Your task to perform on an android device: turn on showing notifications on the lock screen Image 0: 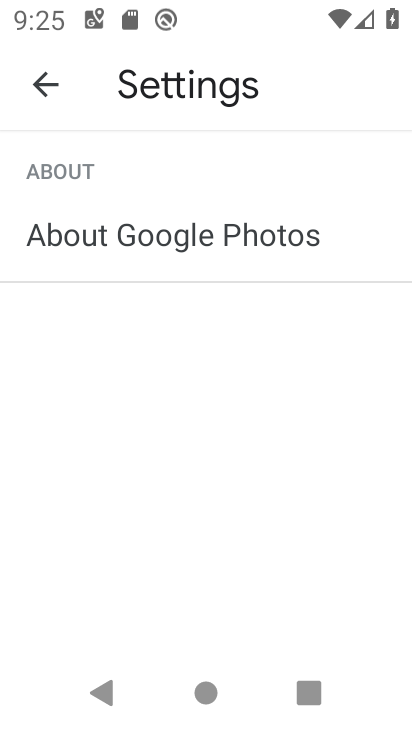
Step 0: press home button
Your task to perform on an android device: turn on showing notifications on the lock screen Image 1: 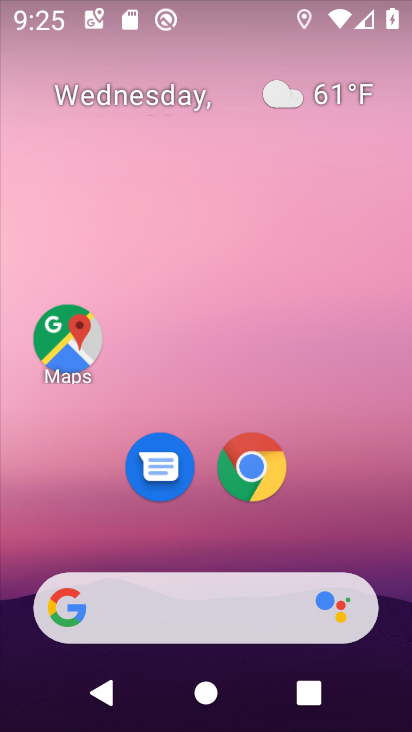
Step 1: drag from (339, 435) to (387, 50)
Your task to perform on an android device: turn on showing notifications on the lock screen Image 2: 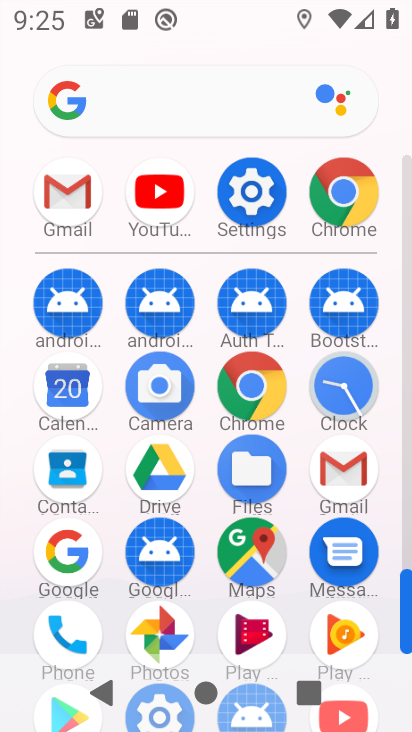
Step 2: click (243, 199)
Your task to perform on an android device: turn on showing notifications on the lock screen Image 3: 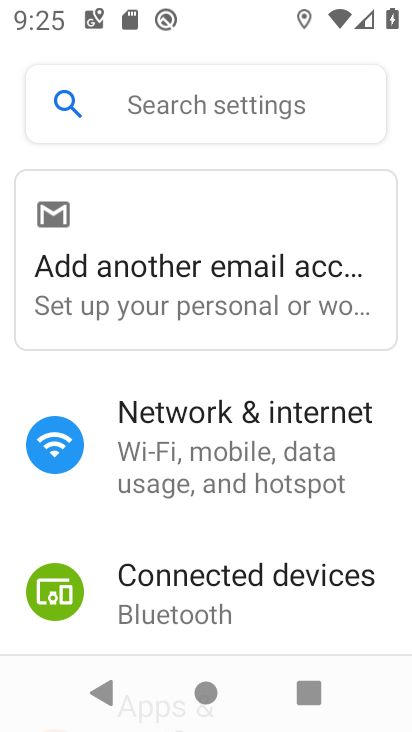
Step 3: drag from (234, 586) to (310, 187)
Your task to perform on an android device: turn on showing notifications on the lock screen Image 4: 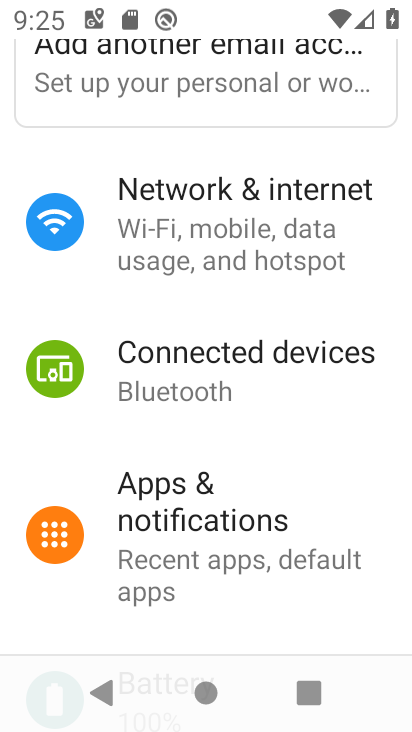
Step 4: click (288, 552)
Your task to perform on an android device: turn on showing notifications on the lock screen Image 5: 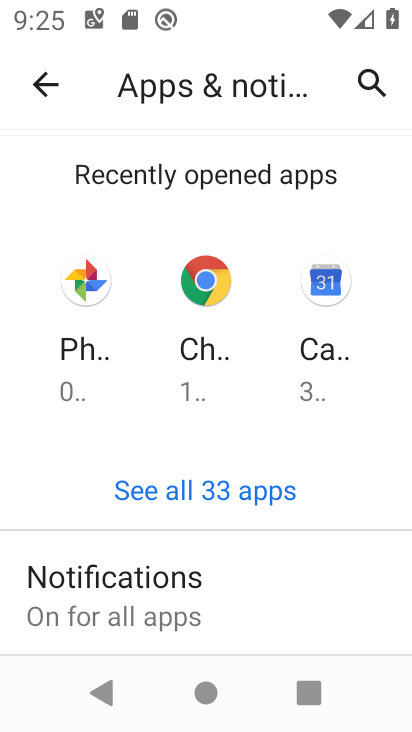
Step 5: drag from (247, 578) to (307, 268)
Your task to perform on an android device: turn on showing notifications on the lock screen Image 6: 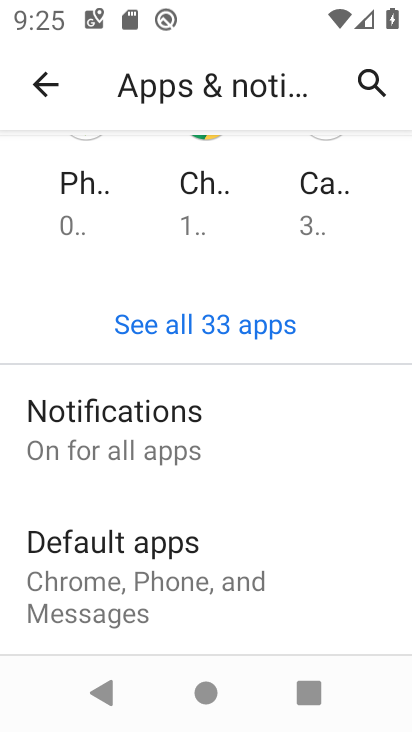
Step 6: drag from (280, 536) to (346, 182)
Your task to perform on an android device: turn on showing notifications on the lock screen Image 7: 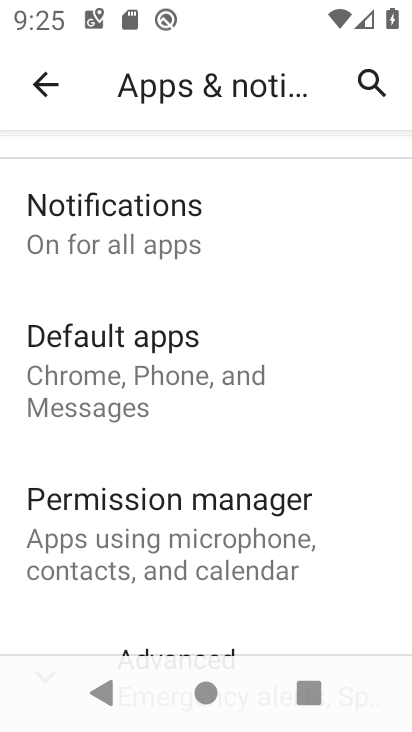
Step 7: drag from (215, 560) to (155, 187)
Your task to perform on an android device: turn on showing notifications on the lock screen Image 8: 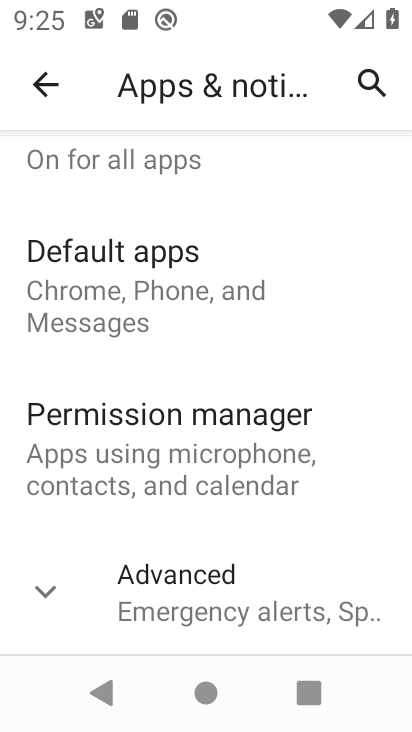
Step 8: drag from (193, 289) to (226, 546)
Your task to perform on an android device: turn on showing notifications on the lock screen Image 9: 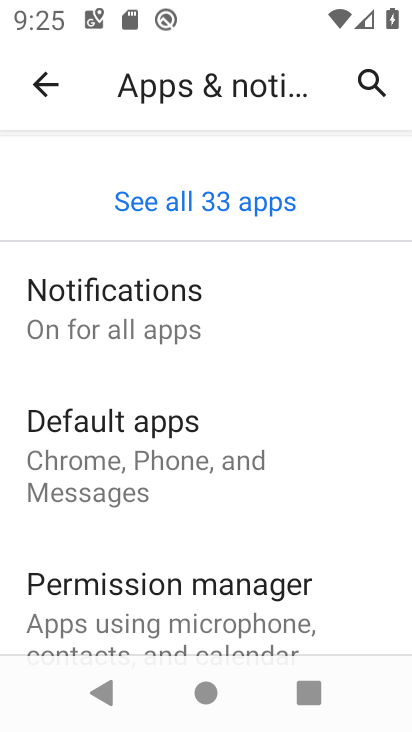
Step 9: click (170, 288)
Your task to perform on an android device: turn on showing notifications on the lock screen Image 10: 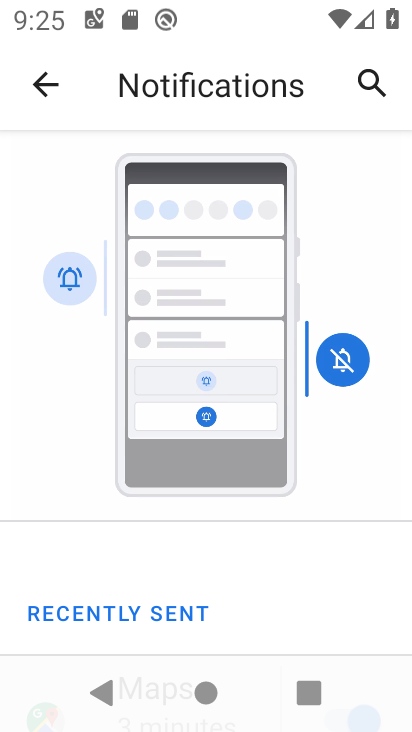
Step 10: drag from (246, 571) to (267, 184)
Your task to perform on an android device: turn on showing notifications on the lock screen Image 11: 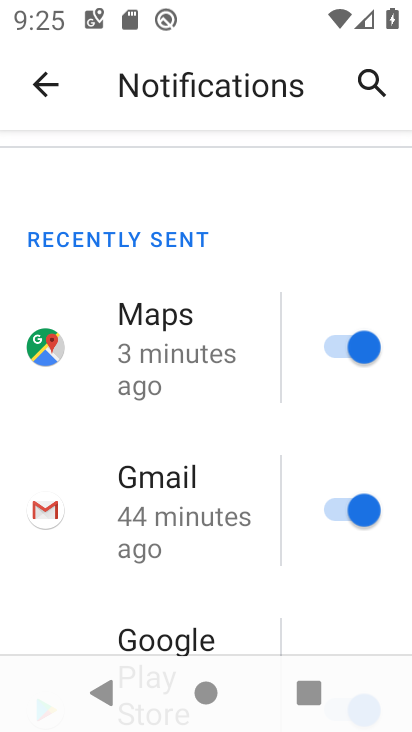
Step 11: drag from (209, 567) to (191, 225)
Your task to perform on an android device: turn on showing notifications on the lock screen Image 12: 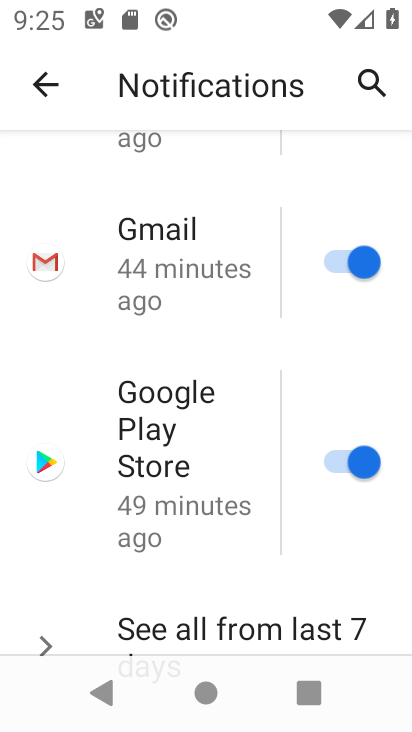
Step 12: drag from (208, 528) to (263, 152)
Your task to perform on an android device: turn on showing notifications on the lock screen Image 13: 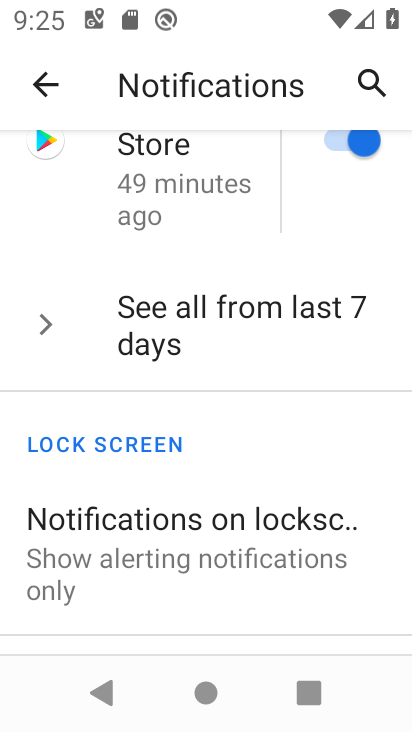
Step 13: drag from (191, 561) to (209, 361)
Your task to perform on an android device: turn on showing notifications on the lock screen Image 14: 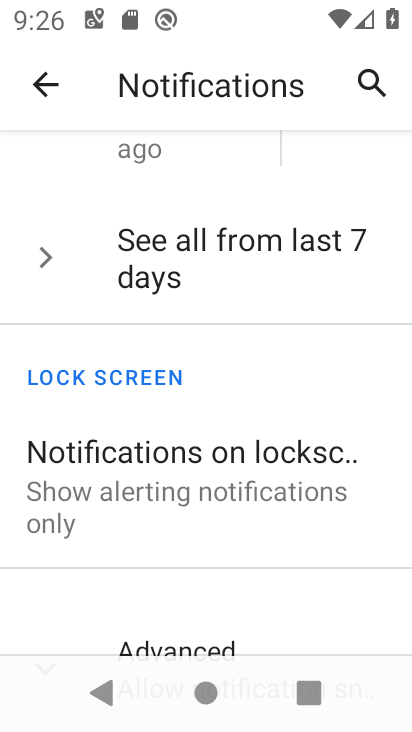
Step 14: click (128, 462)
Your task to perform on an android device: turn on showing notifications on the lock screen Image 15: 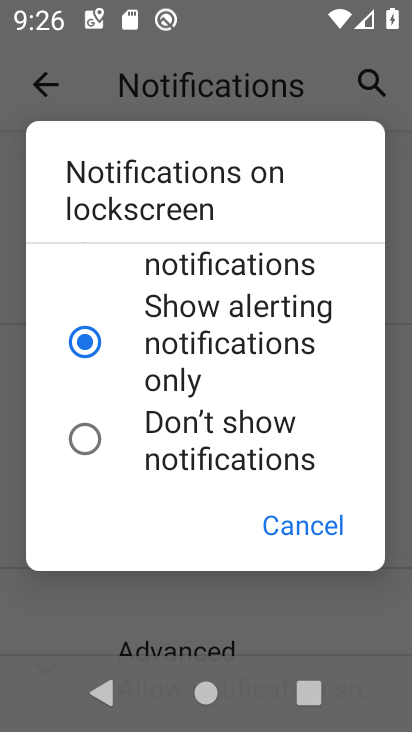
Step 15: task complete